Your task to perform on an android device: turn on translation in the chrome app Image 0: 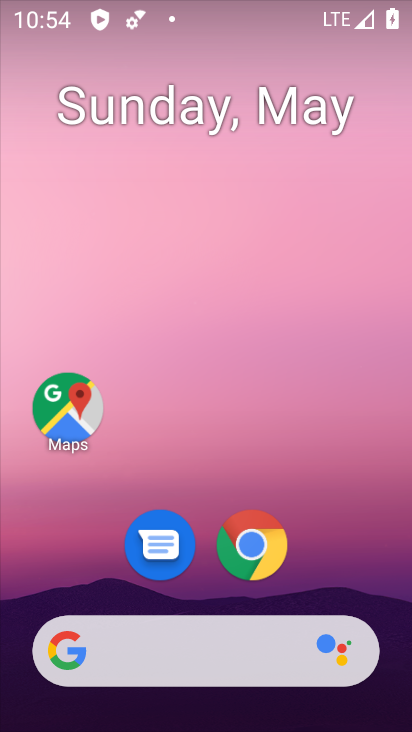
Step 0: drag from (387, 631) to (320, 71)
Your task to perform on an android device: turn on translation in the chrome app Image 1: 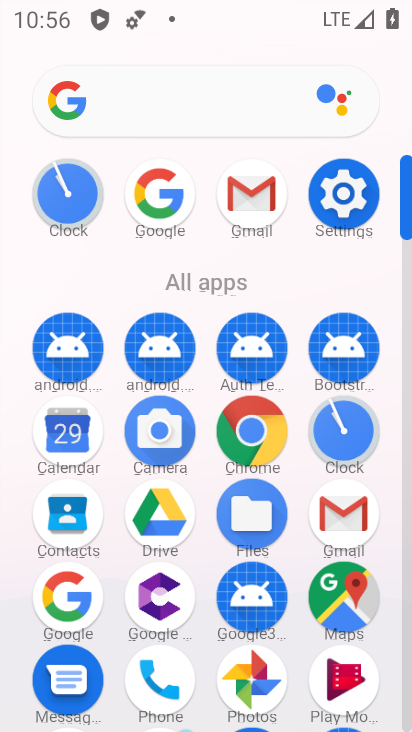
Step 1: click (255, 456)
Your task to perform on an android device: turn on translation in the chrome app Image 2: 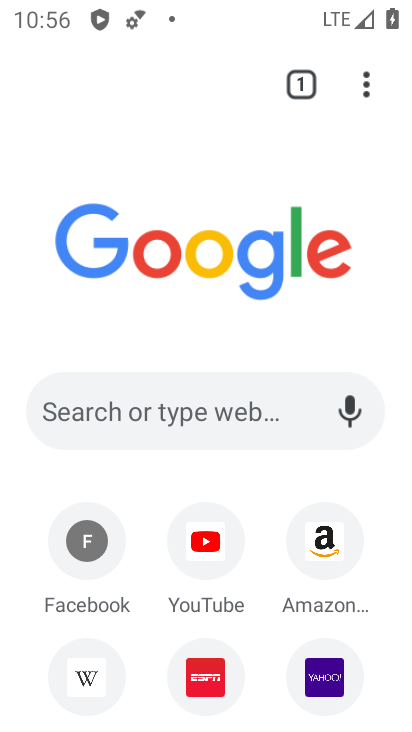
Step 2: click (360, 84)
Your task to perform on an android device: turn on translation in the chrome app Image 3: 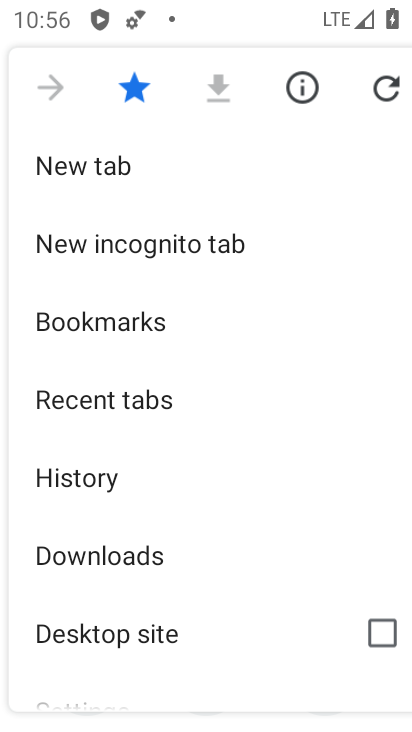
Step 3: drag from (146, 612) to (185, 164)
Your task to perform on an android device: turn on translation in the chrome app Image 4: 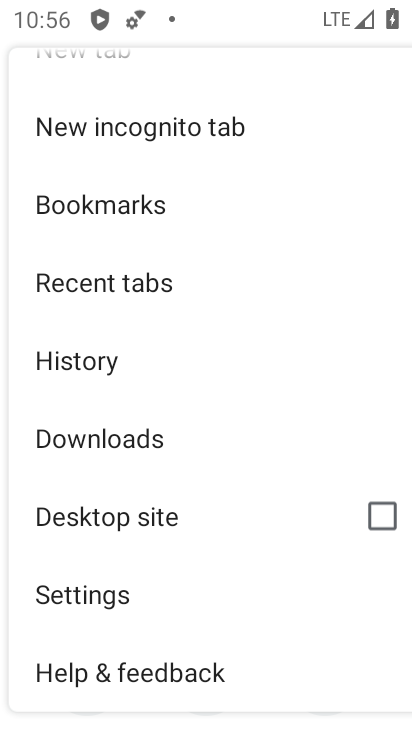
Step 4: click (105, 579)
Your task to perform on an android device: turn on translation in the chrome app Image 5: 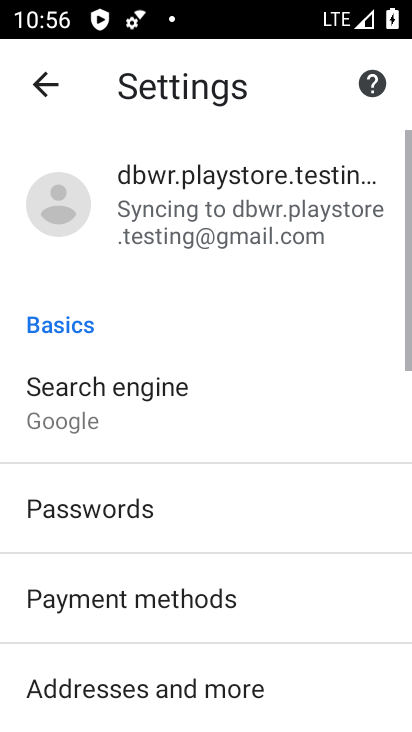
Step 5: drag from (132, 642) to (155, 166)
Your task to perform on an android device: turn on translation in the chrome app Image 6: 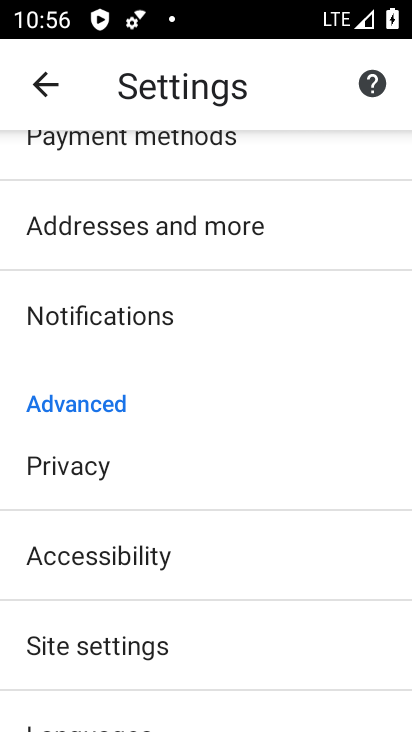
Step 6: drag from (138, 673) to (182, 275)
Your task to perform on an android device: turn on translation in the chrome app Image 7: 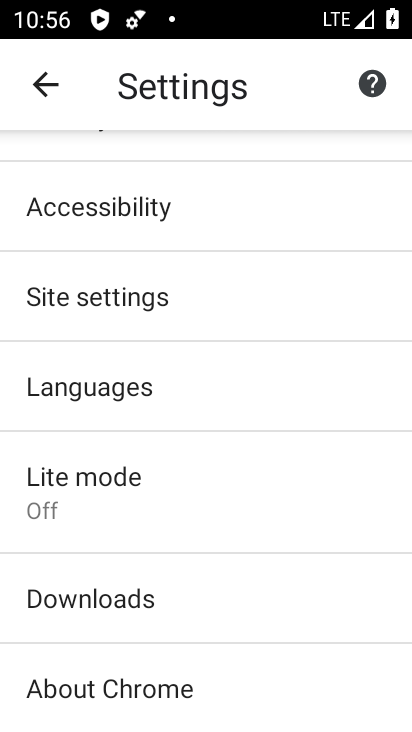
Step 7: click (215, 393)
Your task to perform on an android device: turn on translation in the chrome app Image 8: 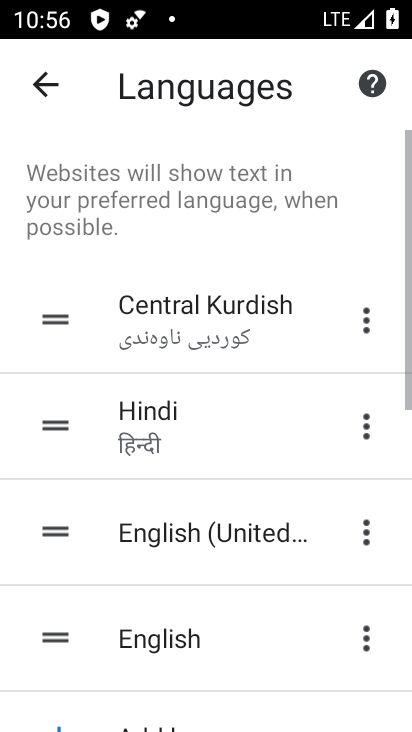
Step 8: drag from (219, 683) to (224, 158)
Your task to perform on an android device: turn on translation in the chrome app Image 9: 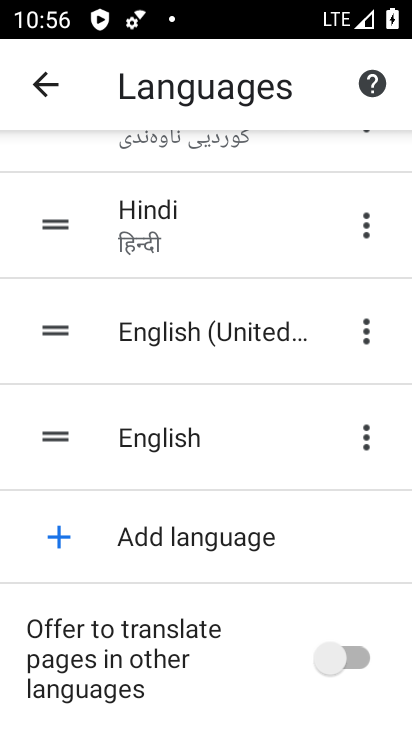
Step 9: click (310, 666)
Your task to perform on an android device: turn on translation in the chrome app Image 10: 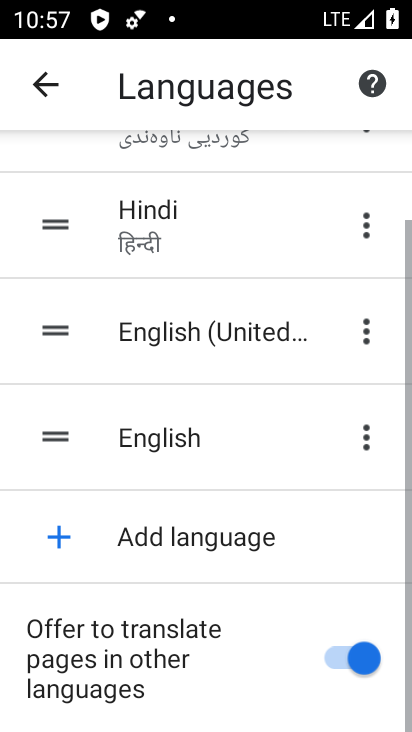
Step 10: task complete